Your task to perform on an android device: move a message to another label in the gmail app Image 0: 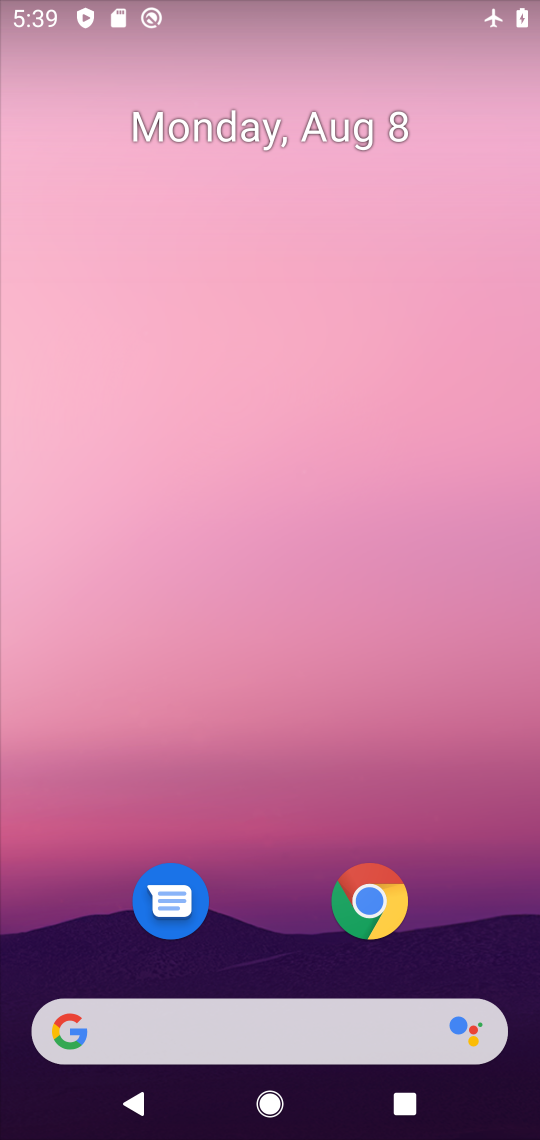
Step 0: drag from (465, 936) to (331, 112)
Your task to perform on an android device: move a message to another label in the gmail app Image 1: 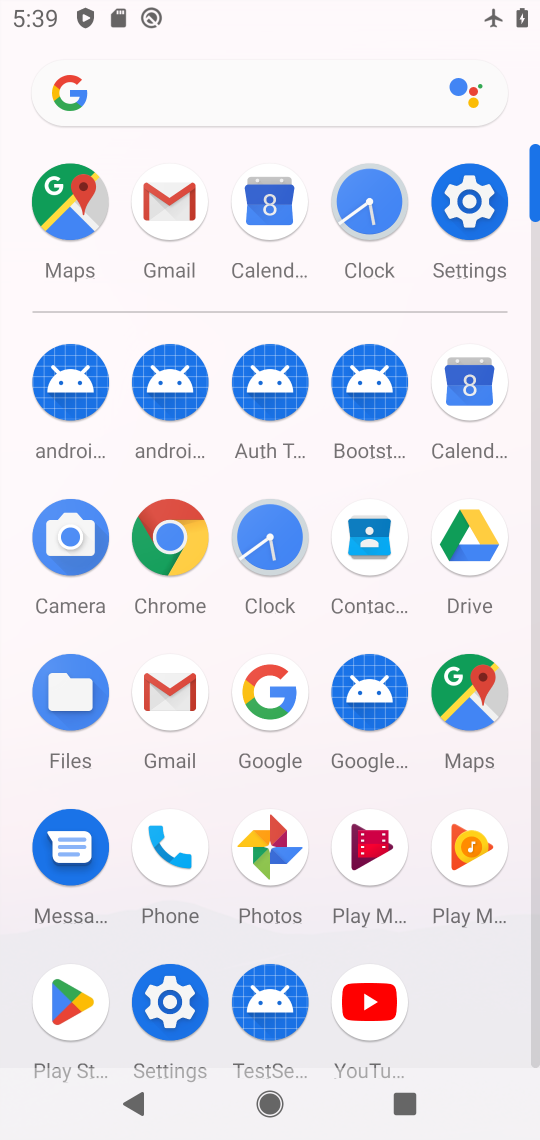
Step 1: click (164, 211)
Your task to perform on an android device: move a message to another label in the gmail app Image 2: 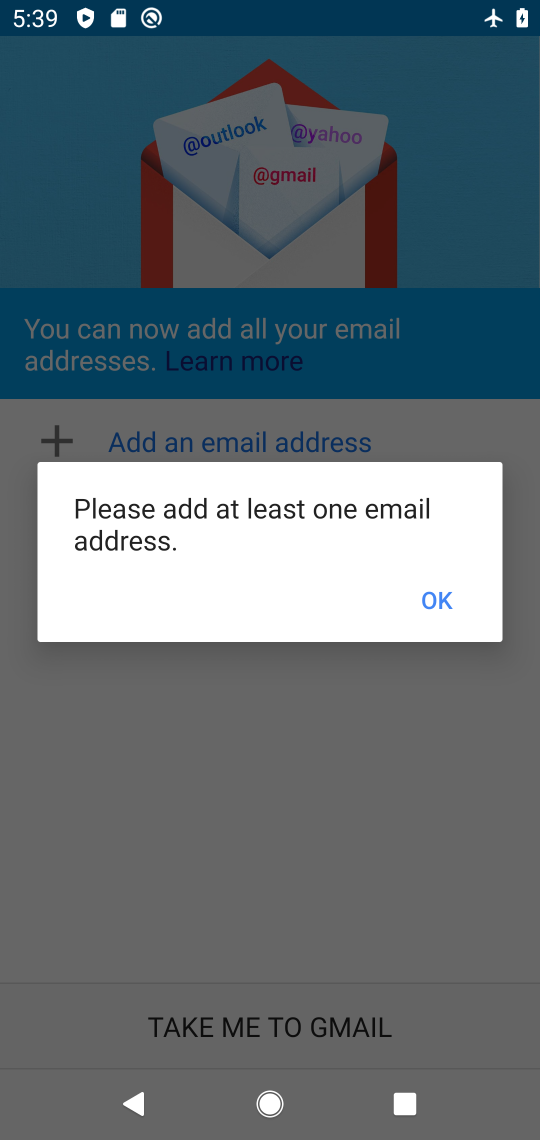
Step 2: task complete